Your task to perform on an android device: Open Google Maps Image 0: 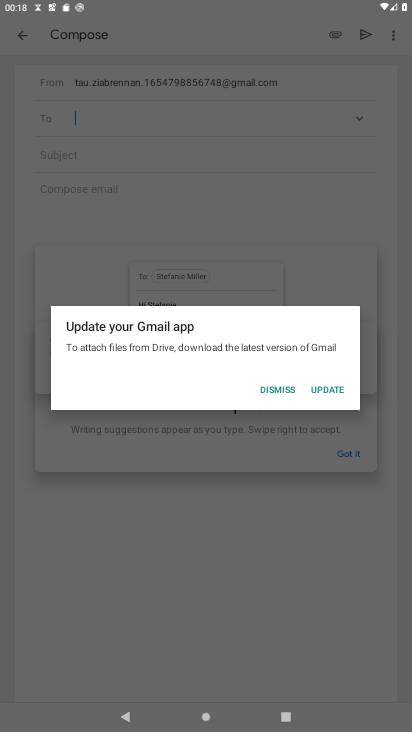
Step 0: press home button
Your task to perform on an android device: Open Google Maps Image 1: 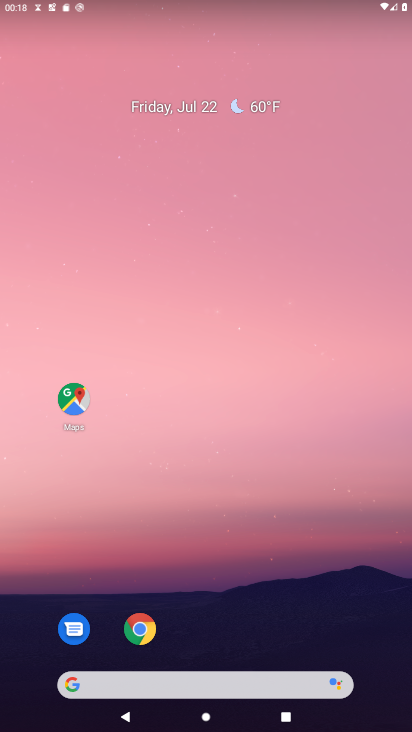
Step 1: click (68, 395)
Your task to perform on an android device: Open Google Maps Image 2: 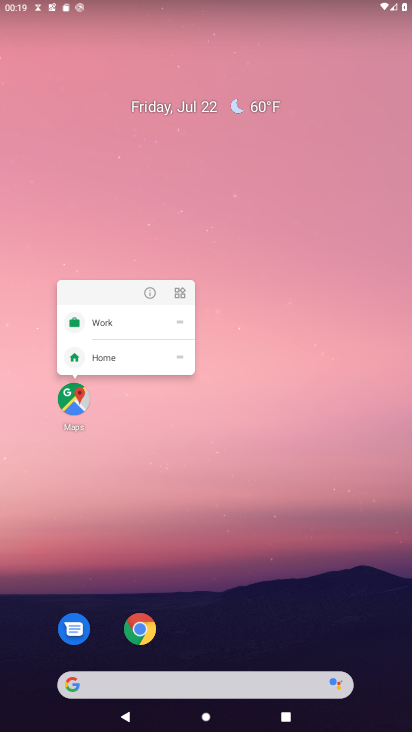
Step 2: click (79, 404)
Your task to perform on an android device: Open Google Maps Image 3: 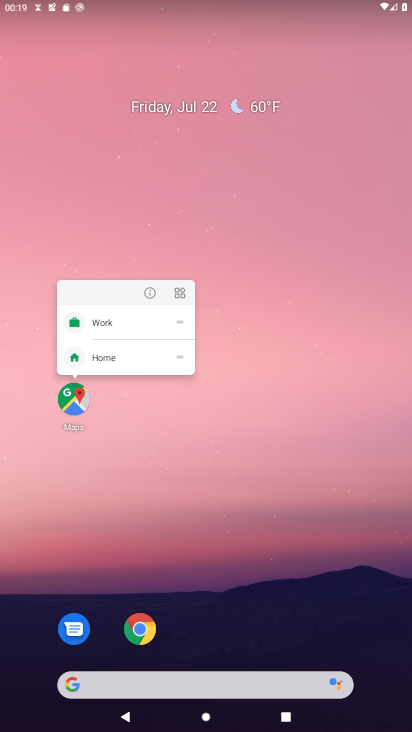
Step 3: click (79, 404)
Your task to perform on an android device: Open Google Maps Image 4: 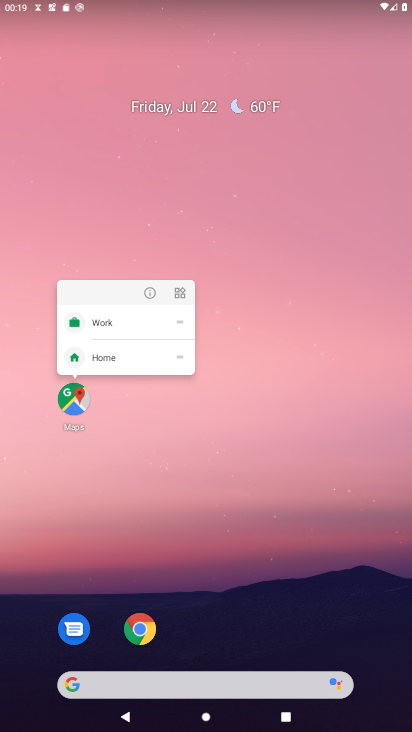
Step 4: click (79, 404)
Your task to perform on an android device: Open Google Maps Image 5: 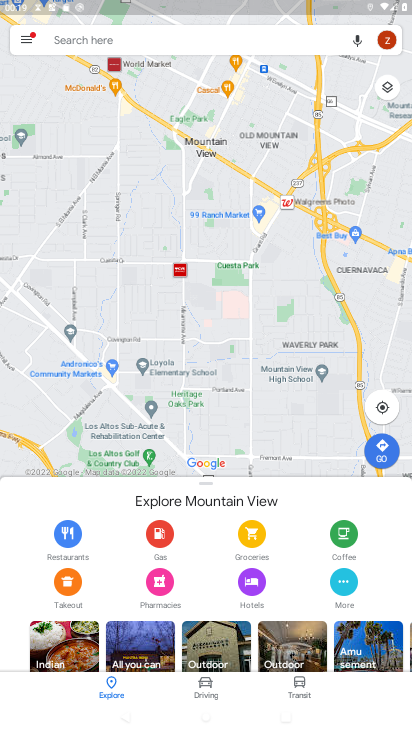
Step 5: task complete